Your task to perform on an android device: see creations saved in the google photos Image 0: 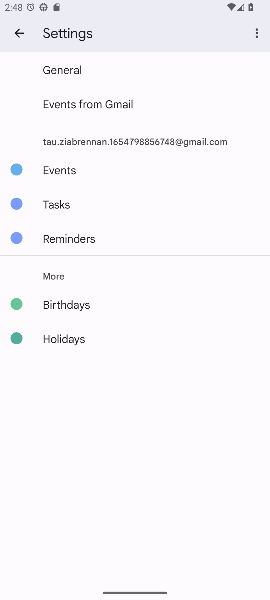
Step 0: press home button
Your task to perform on an android device: see creations saved in the google photos Image 1: 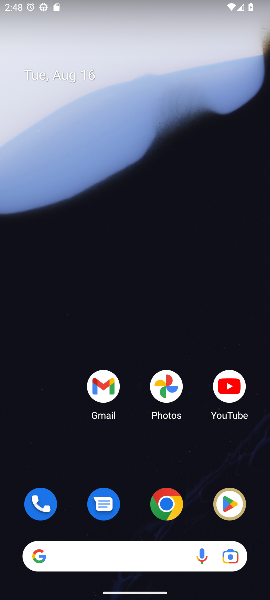
Step 1: drag from (143, 477) to (127, 113)
Your task to perform on an android device: see creations saved in the google photos Image 2: 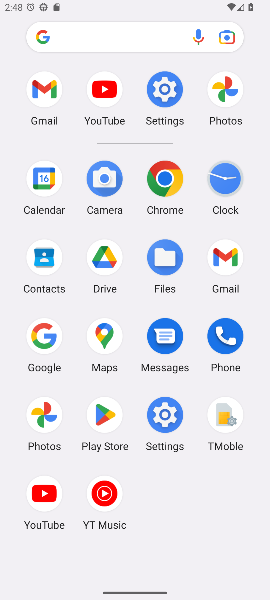
Step 2: click (216, 88)
Your task to perform on an android device: see creations saved in the google photos Image 3: 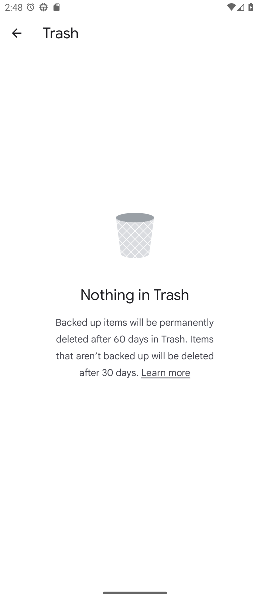
Step 3: click (18, 27)
Your task to perform on an android device: see creations saved in the google photos Image 4: 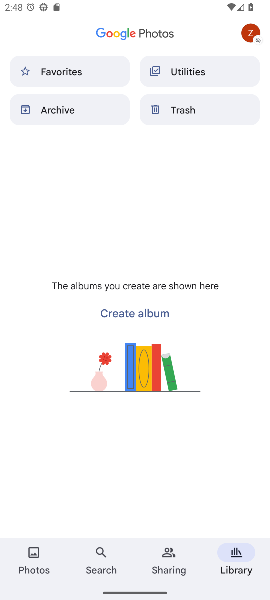
Step 4: click (96, 549)
Your task to perform on an android device: see creations saved in the google photos Image 5: 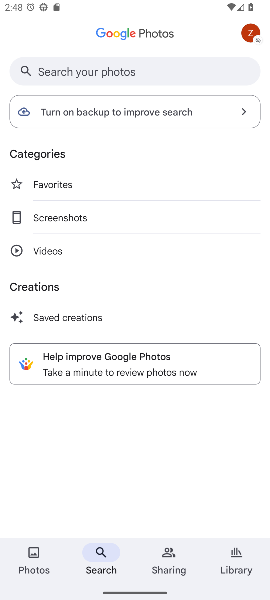
Step 5: click (50, 315)
Your task to perform on an android device: see creations saved in the google photos Image 6: 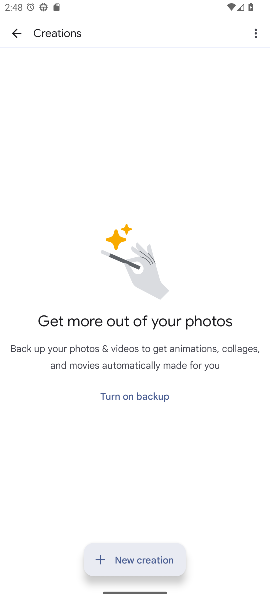
Step 6: task complete